Your task to perform on an android device: Open Chrome and go to the settings page Image 0: 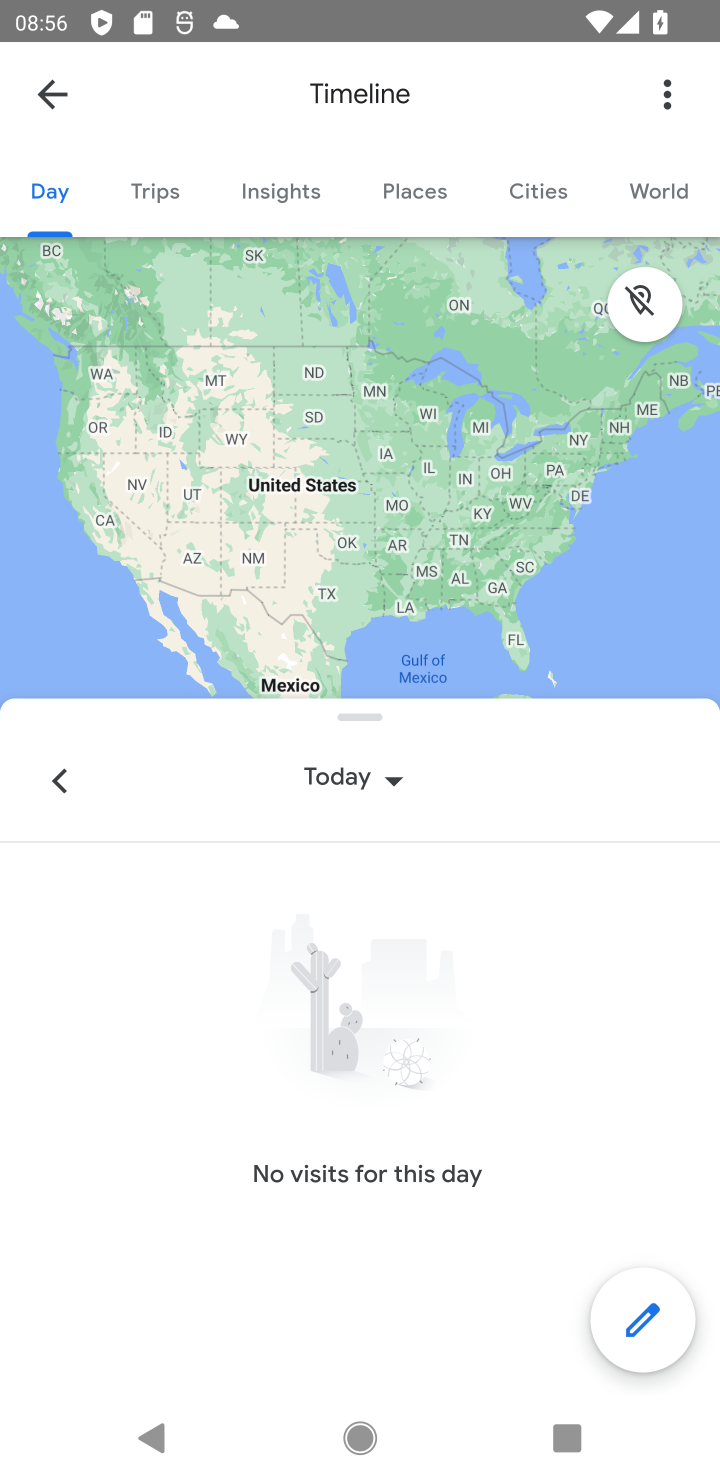
Step 0: press home button
Your task to perform on an android device: Open Chrome and go to the settings page Image 1: 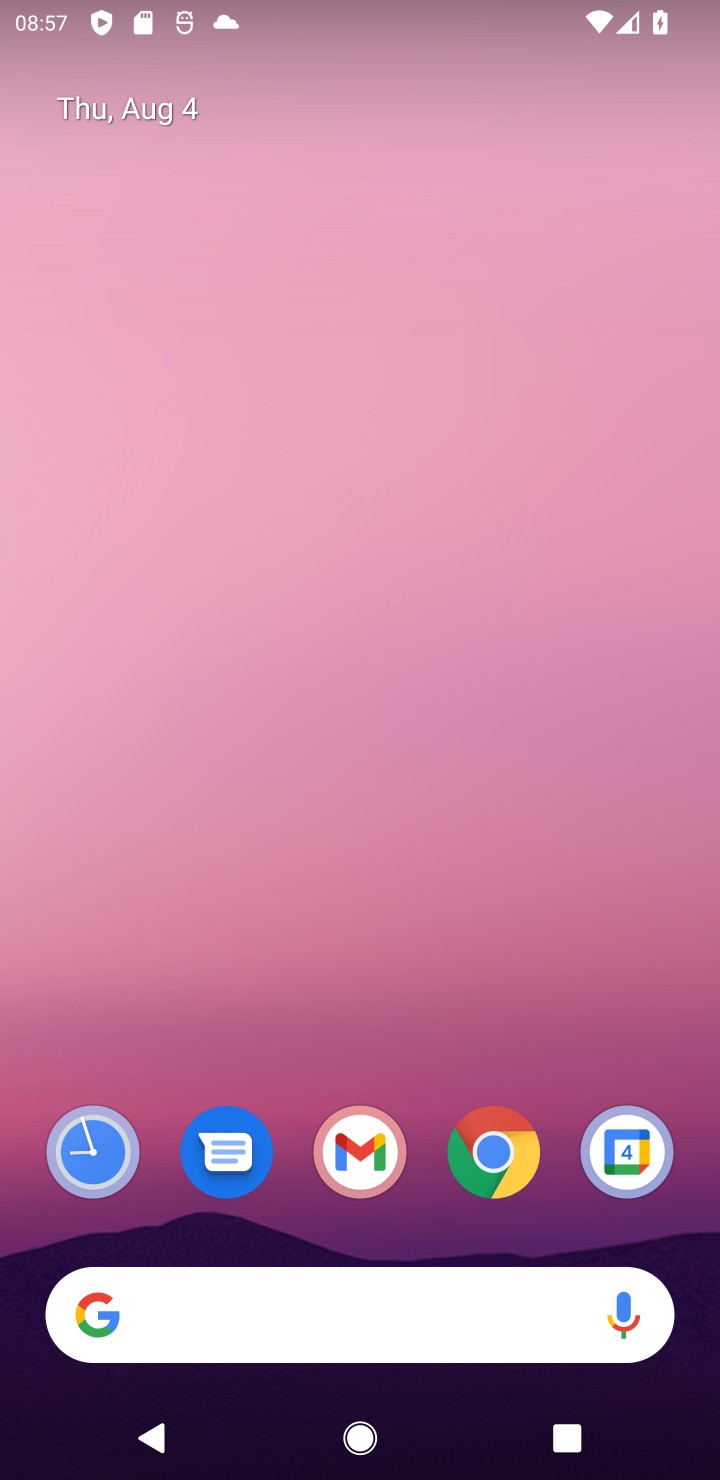
Step 1: click (503, 1166)
Your task to perform on an android device: Open Chrome and go to the settings page Image 2: 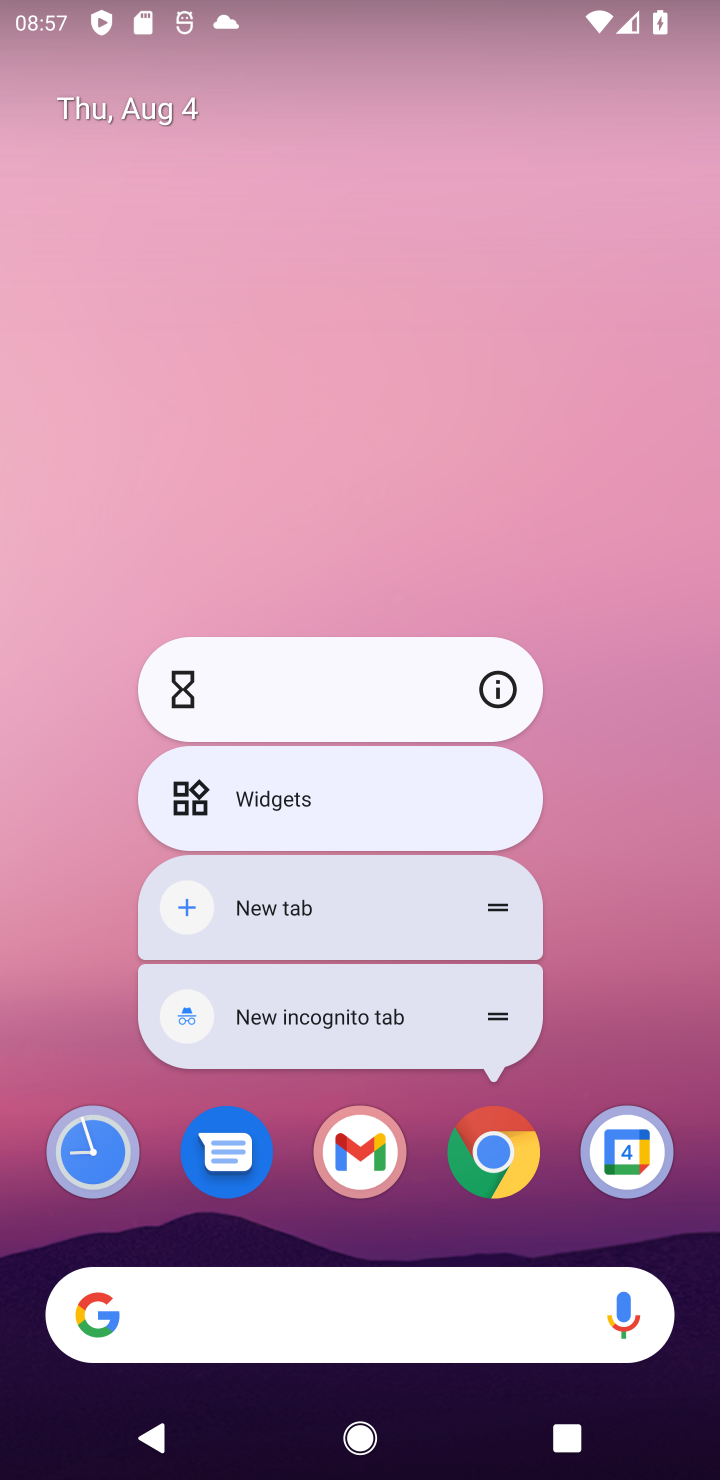
Step 2: click (504, 1162)
Your task to perform on an android device: Open Chrome and go to the settings page Image 3: 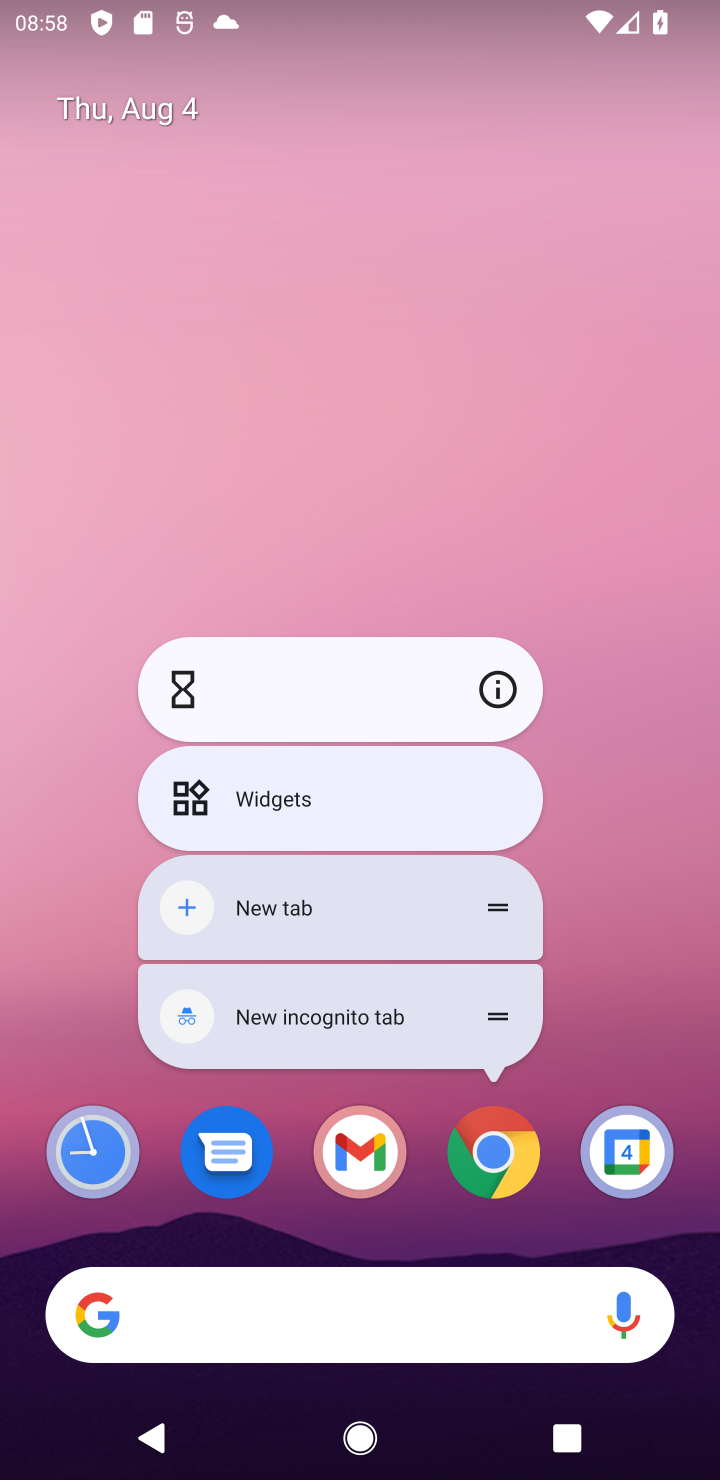
Step 3: click (504, 1168)
Your task to perform on an android device: Open Chrome and go to the settings page Image 4: 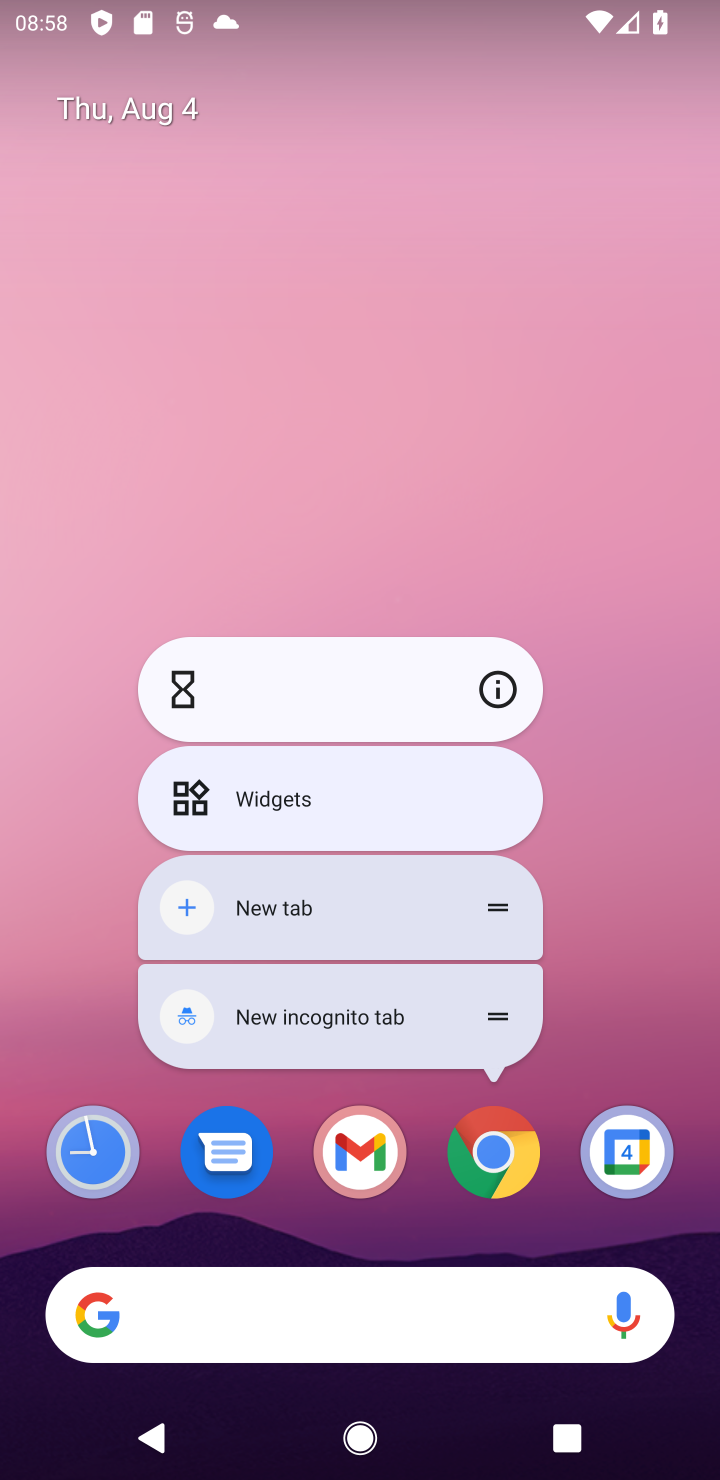
Step 4: click (504, 1168)
Your task to perform on an android device: Open Chrome and go to the settings page Image 5: 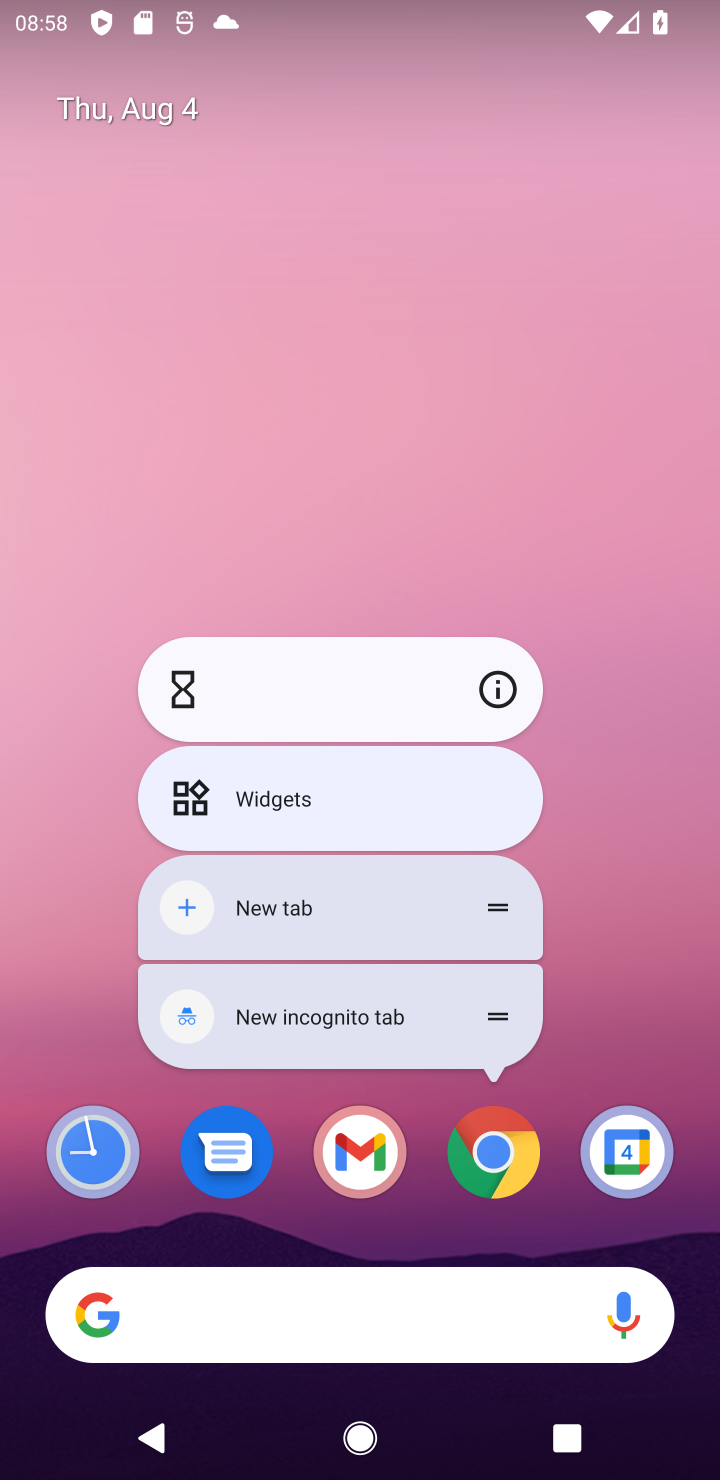
Step 5: click (504, 1182)
Your task to perform on an android device: Open Chrome and go to the settings page Image 6: 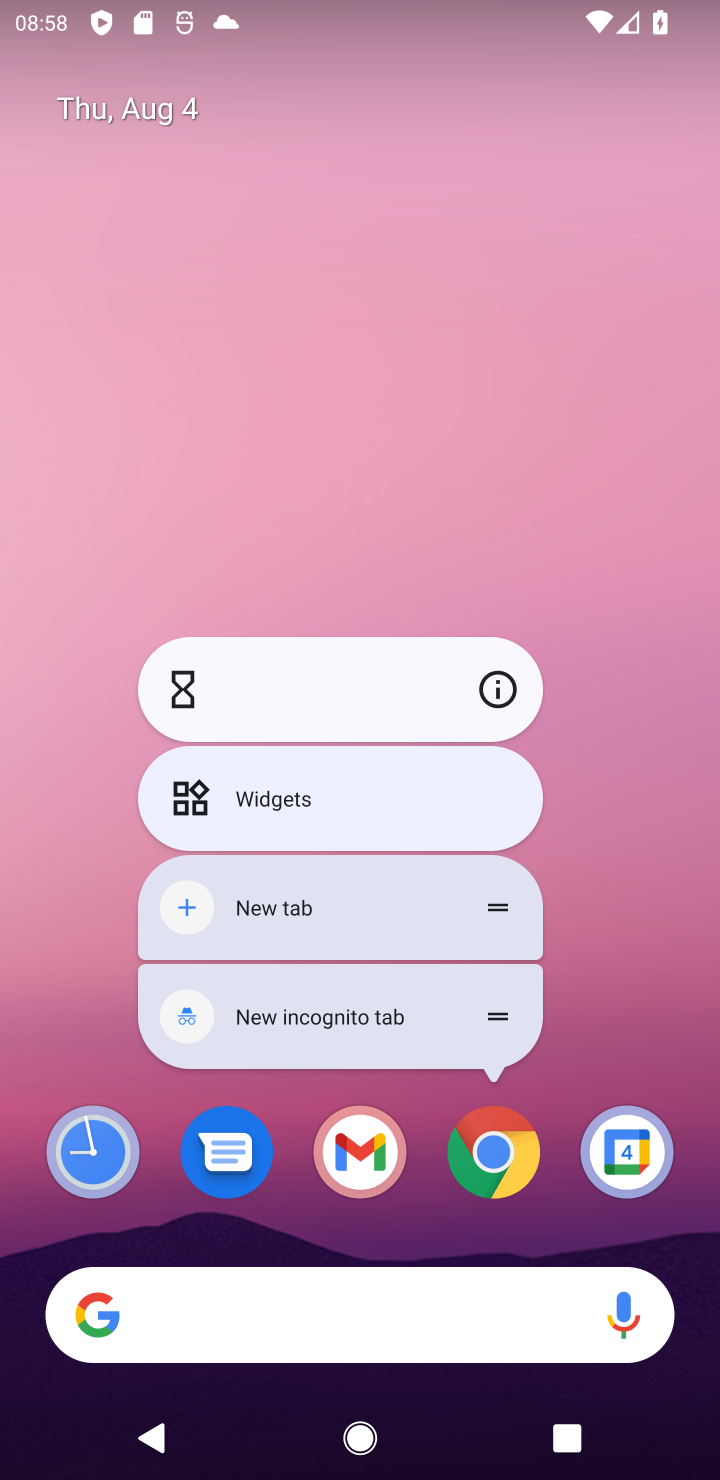
Step 6: click (482, 1101)
Your task to perform on an android device: Open Chrome and go to the settings page Image 7: 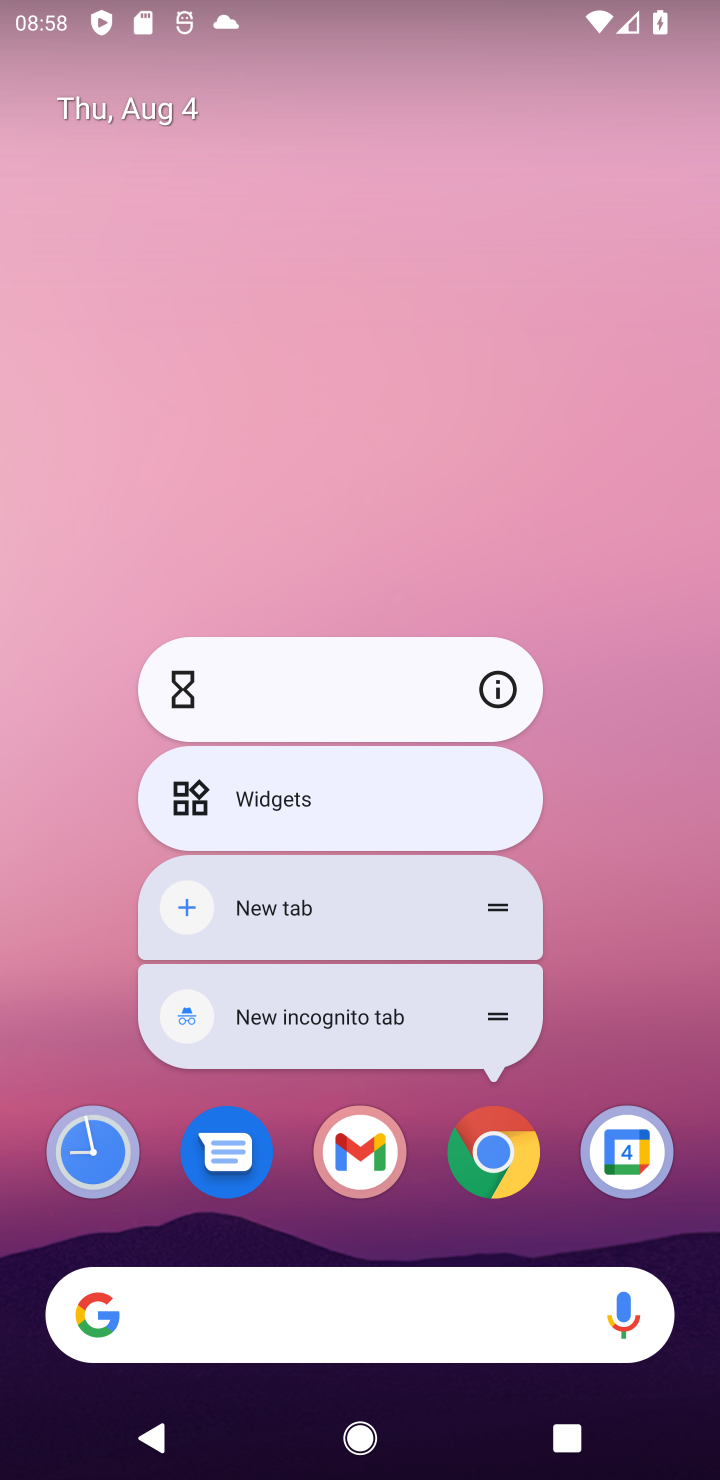
Step 7: click (492, 1154)
Your task to perform on an android device: Open Chrome and go to the settings page Image 8: 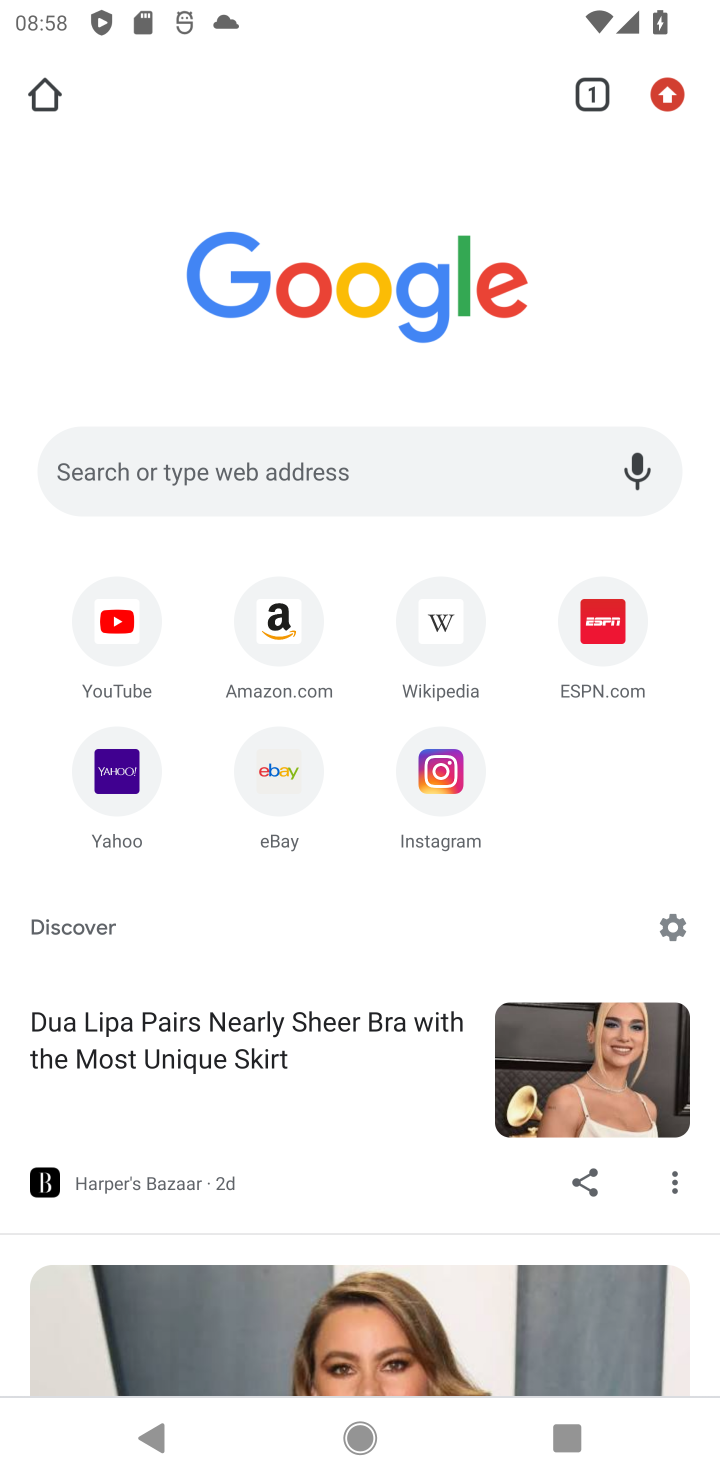
Step 8: click (641, 94)
Your task to perform on an android device: Open Chrome and go to the settings page Image 9: 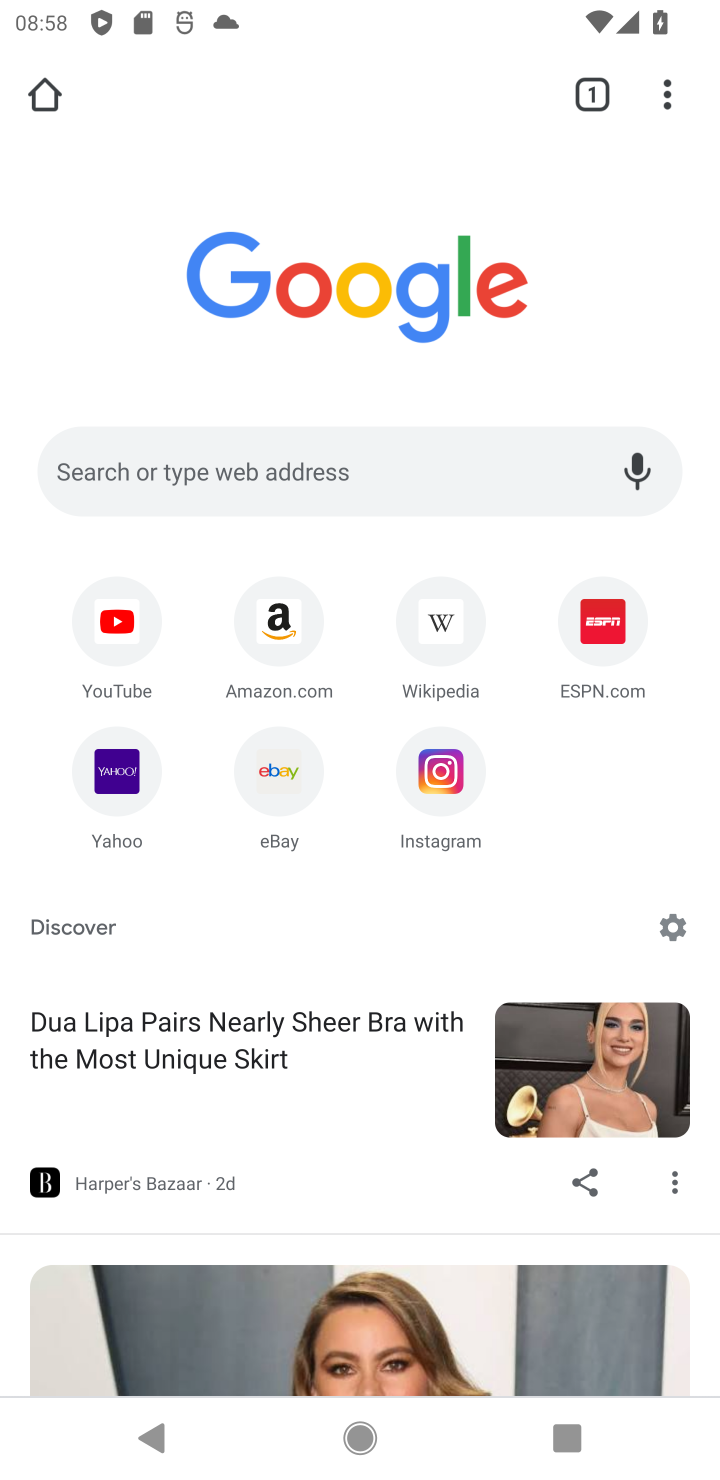
Step 9: click (658, 119)
Your task to perform on an android device: Open Chrome and go to the settings page Image 10: 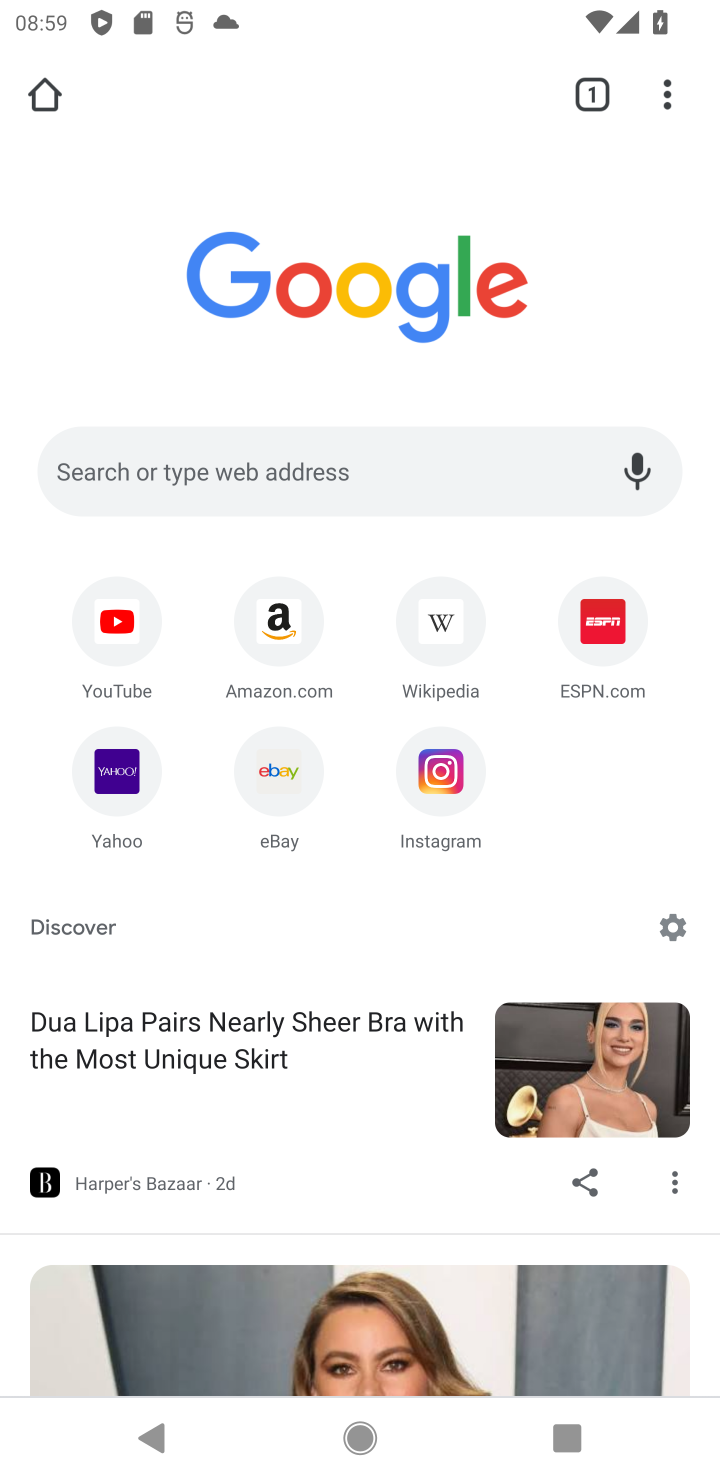
Step 10: task complete